Your task to perform on an android device: Clear the cart on bestbuy. Add logitech g933 to the cart on bestbuy Image 0: 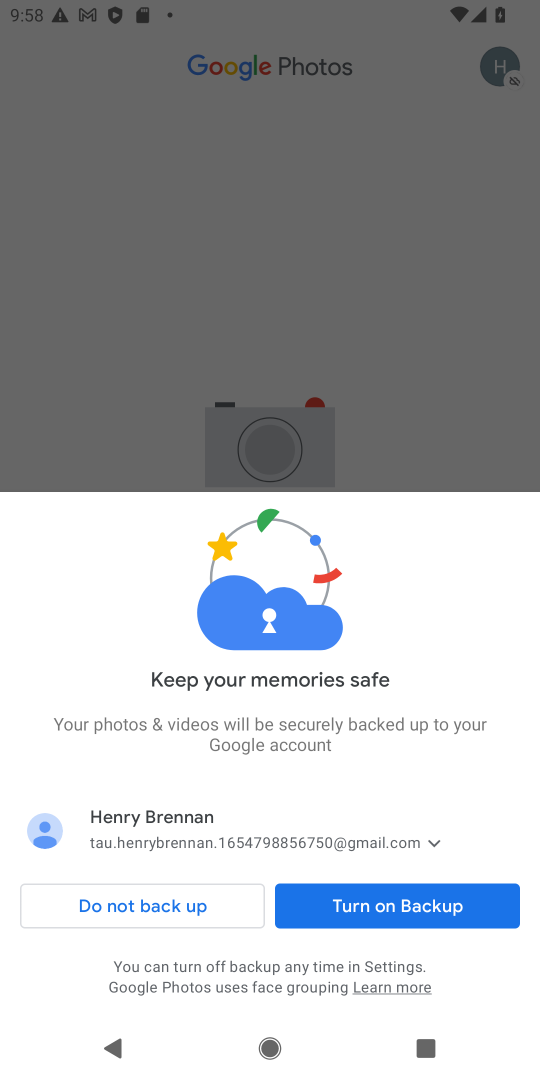
Step 0: press home button
Your task to perform on an android device: Clear the cart on bestbuy. Add logitech g933 to the cart on bestbuy Image 1: 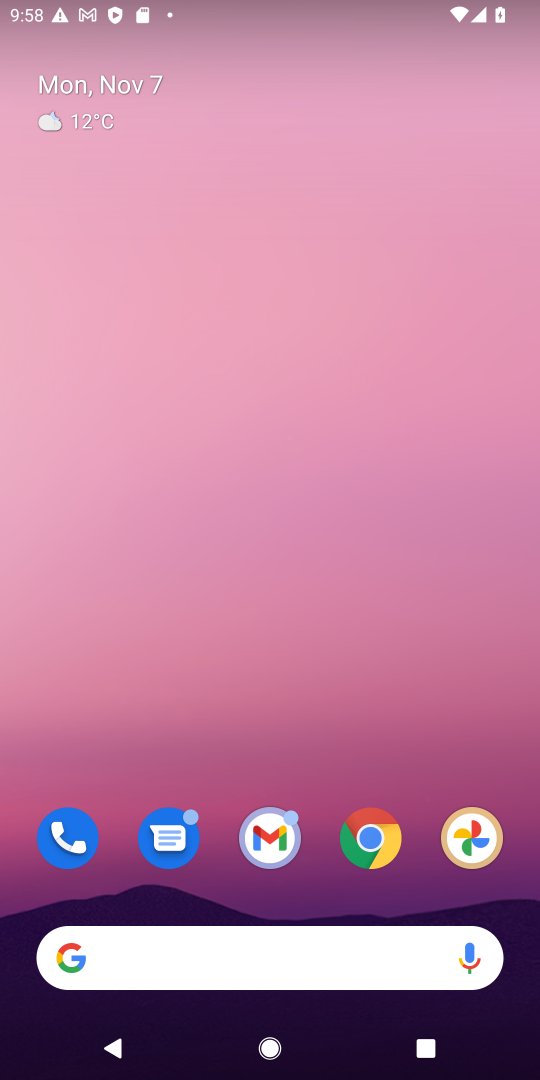
Step 1: click (366, 856)
Your task to perform on an android device: Clear the cart on bestbuy. Add logitech g933 to the cart on bestbuy Image 2: 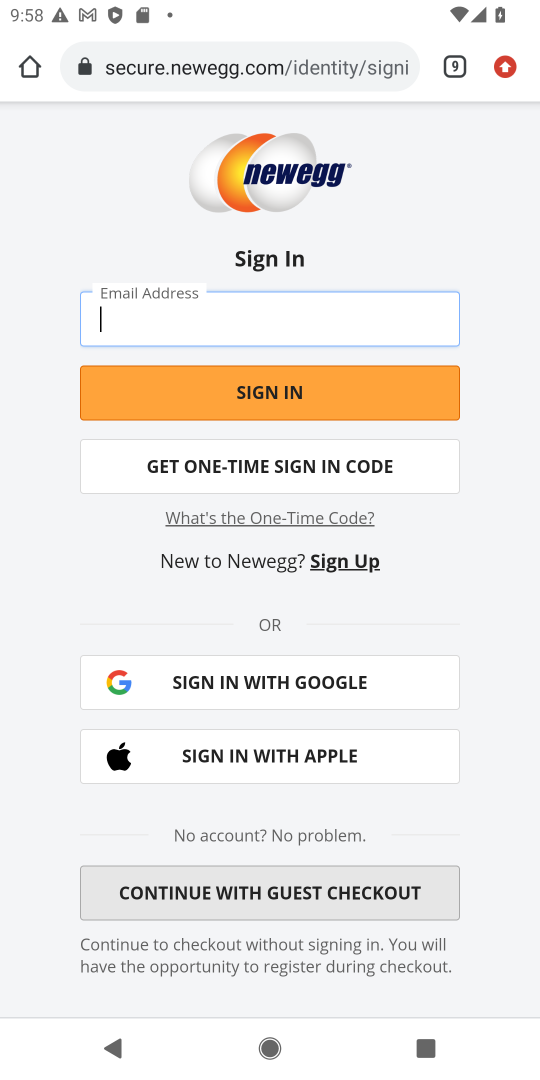
Step 2: click (455, 65)
Your task to perform on an android device: Clear the cart on bestbuy. Add logitech g933 to the cart on bestbuy Image 3: 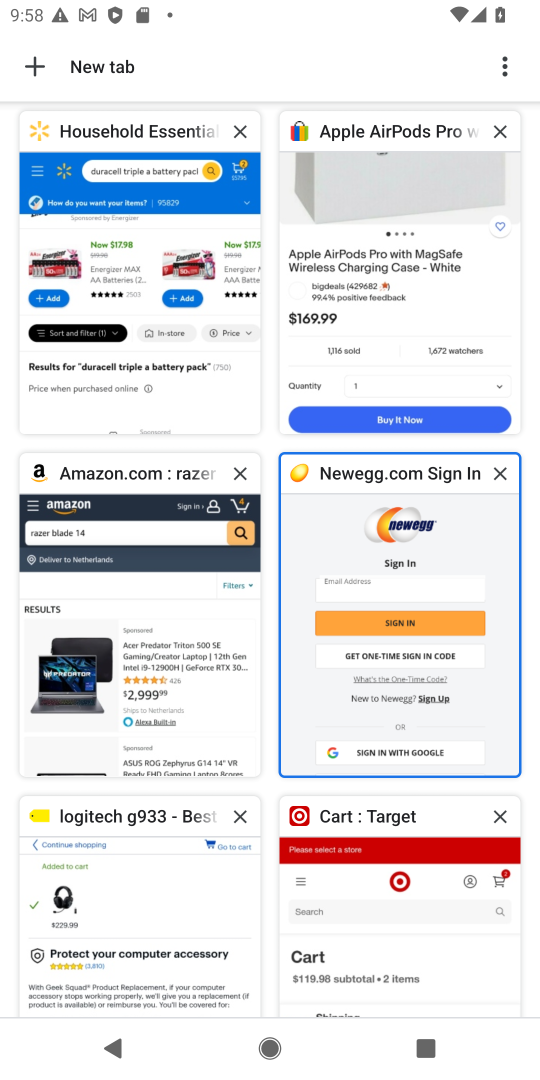
Step 3: click (183, 873)
Your task to perform on an android device: Clear the cart on bestbuy. Add logitech g933 to the cart on bestbuy Image 4: 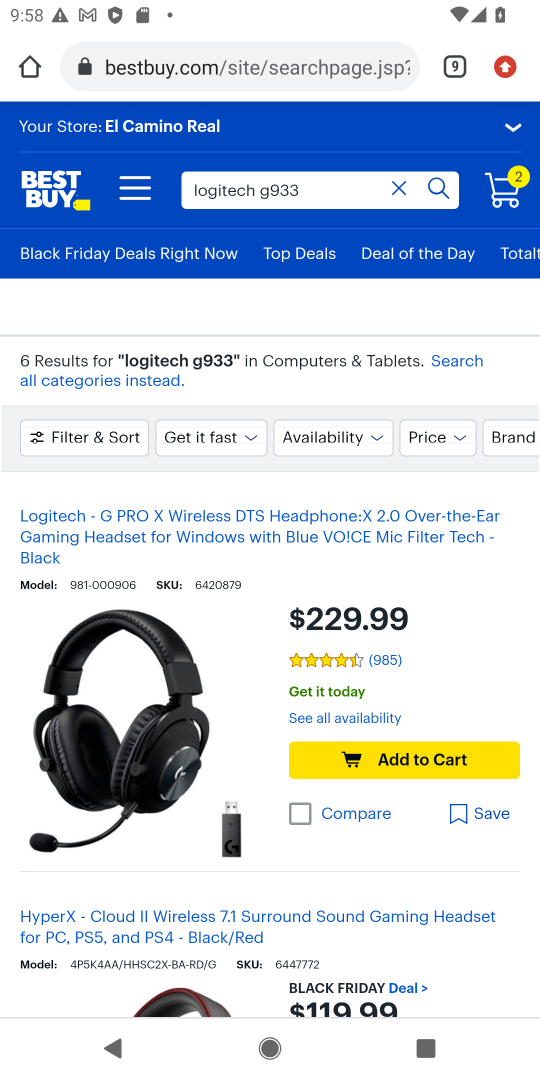
Step 4: click (409, 759)
Your task to perform on an android device: Clear the cart on bestbuy. Add logitech g933 to the cart on bestbuy Image 5: 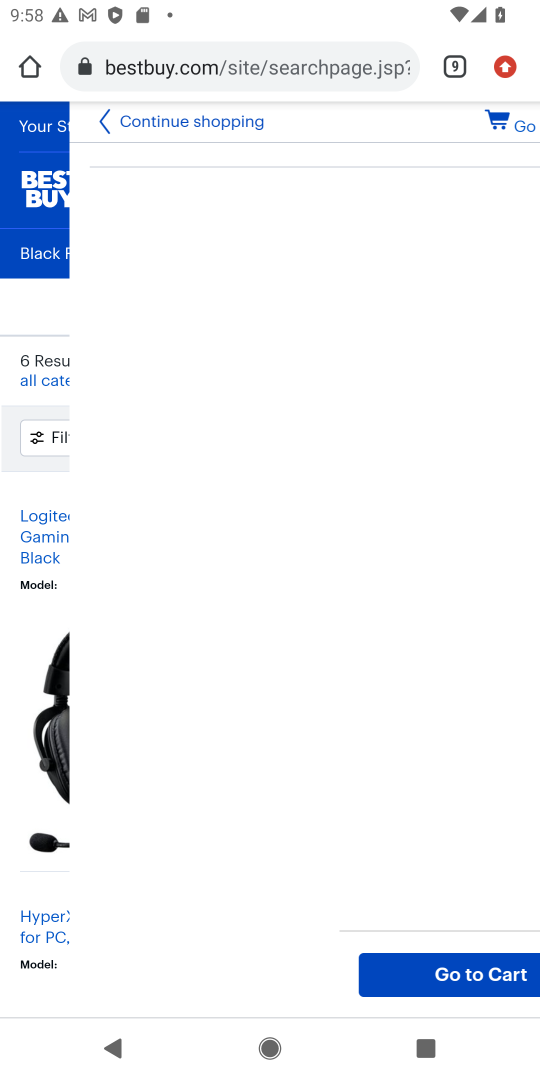
Step 5: click (504, 184)
Your task to perform on an android device: Clear the cart on bestbuy. Add logitech g933 to the cart on bestbuy Image 6: 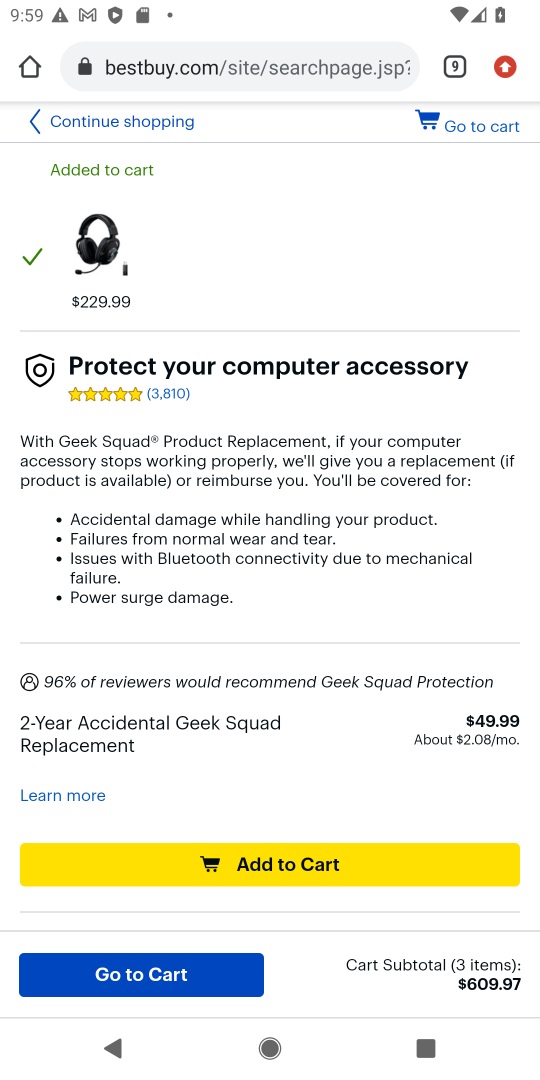
Step 6: click (191, 976)
Your task to perform on an android device: Clear the cart on bestbuy. Add logitech g933 to the cart on bestbuy Image 7: 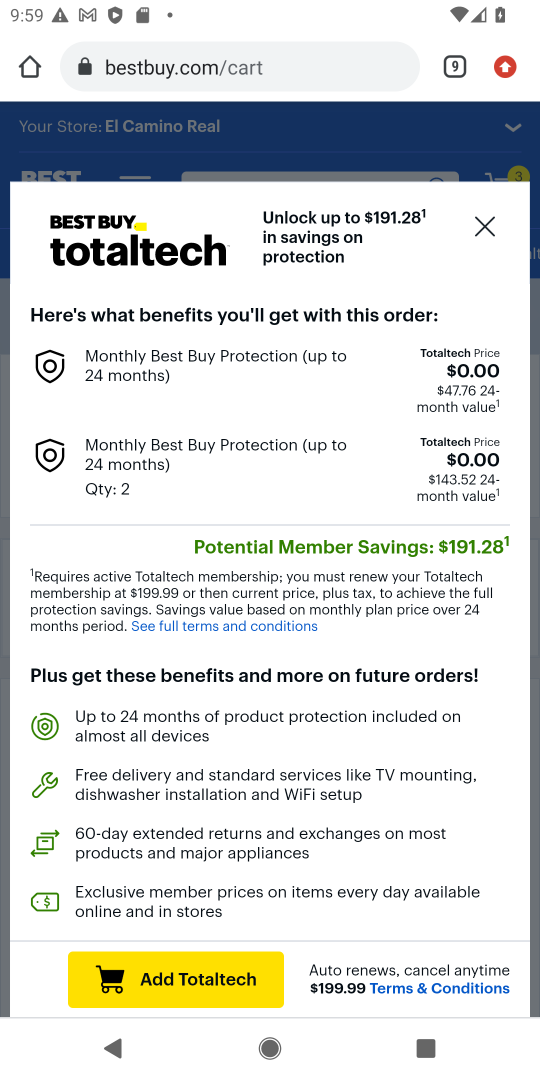
Step 7: click (484, 228)
Your task to perform on an android device: Clear the cart on bestbuy. Add logitech g933 to the cart on bestbuy Image 8: 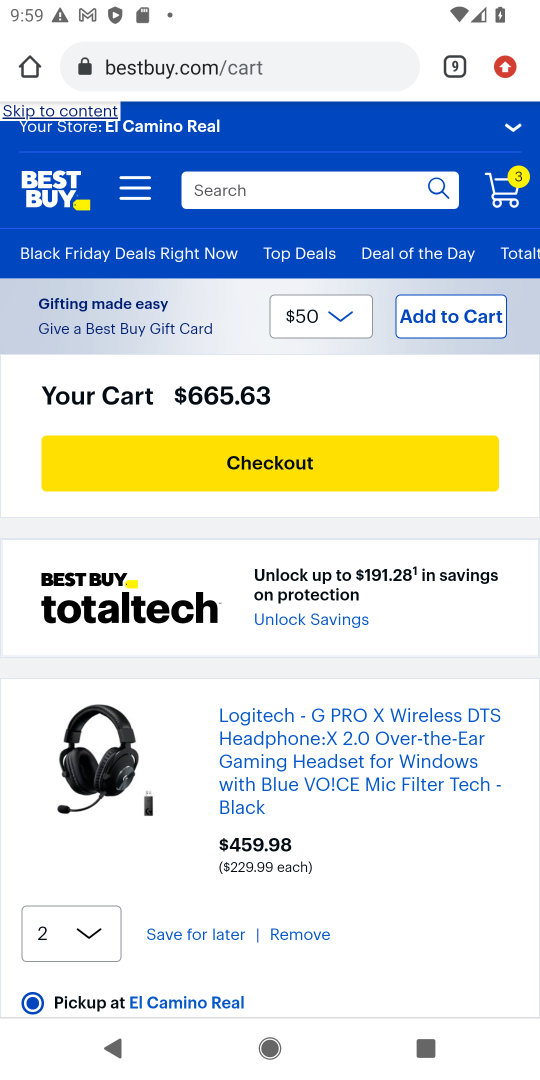
Step 8: click (84, 932)
Your task to perform on an android device: Clear the cart on bestbuy. Add logitech g933 to the cart on bestbuy Image 9: 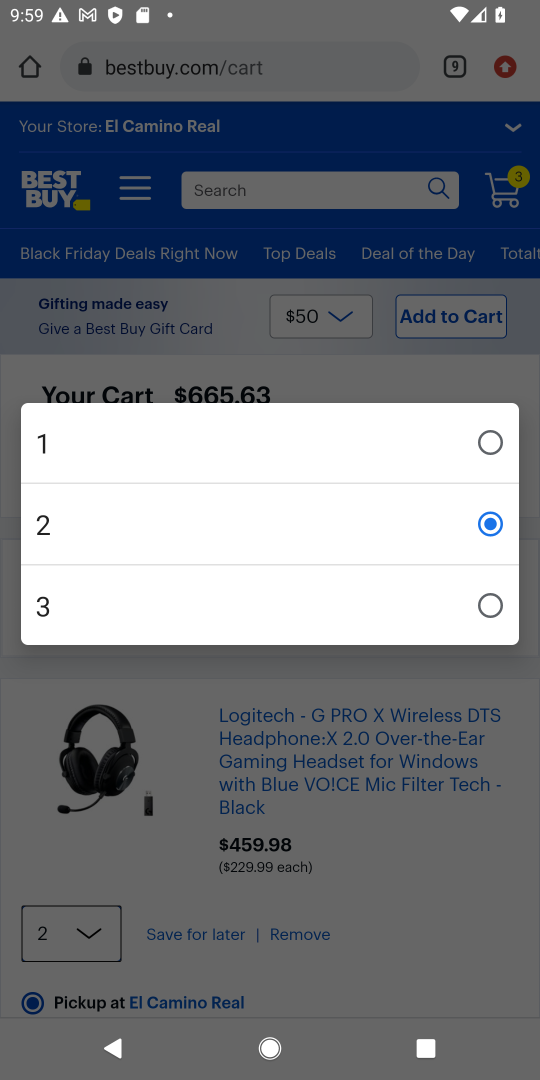
Step 9: click (498, 447)
Your task to perform on an android device: Clear the cart on bestbuy. Add logitech g933 to the cart on bestbuy Image 10: 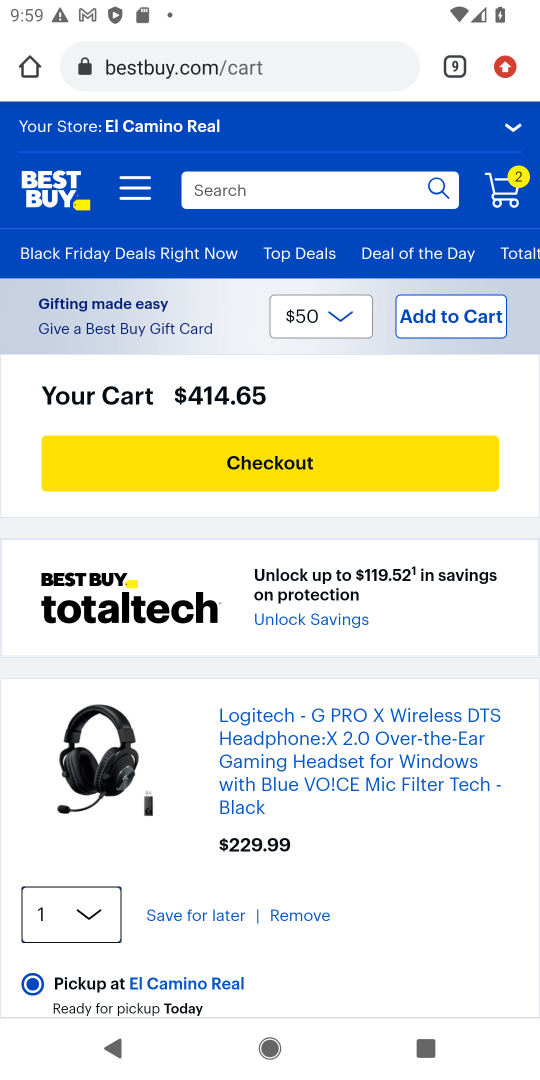
Step 10: task complete